Your task to perform on an android device: open app "Skype" Image 0: 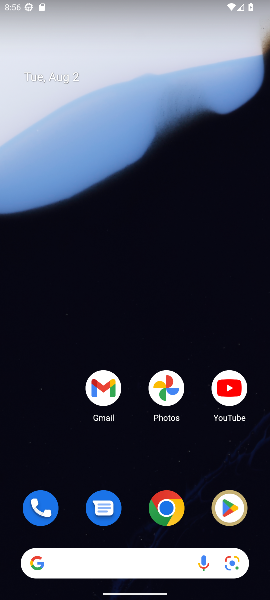
Step 0: drag from (134, 547) to (201, 39)
Your task to perform on an android device: open app "Skype" Image 1: 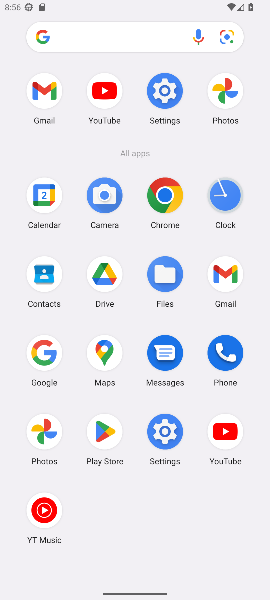
Step 1: click (112, 448)
Your task to perform on an android device: open app "Skype" Image 2: 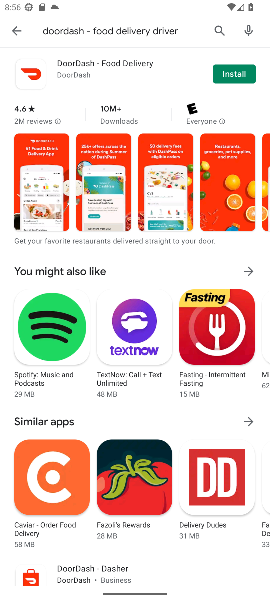
Step 2: click (17, 25)
Your task to perform on an android device: open app "Skype" Image 3: 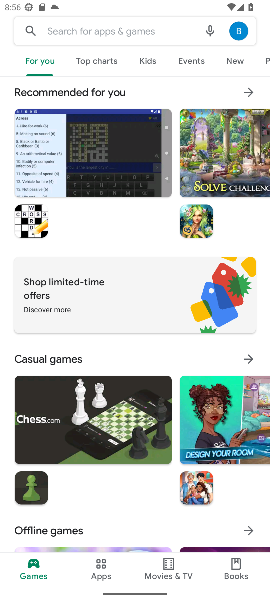
Step 3: click (119, 32)
Your task to perform on an android device: open app "Skype" Image 4: 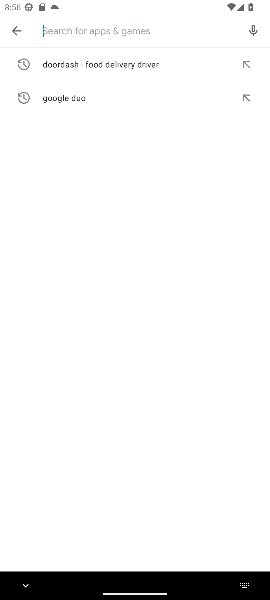
Step 4: type "Skype"
Your task to perform on an android device: open app "Skype" Image 5: 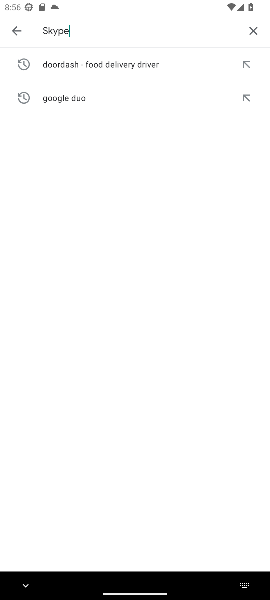
Step 5: type ""
Your task to perform on an android device: open app "Skype" Image 6: 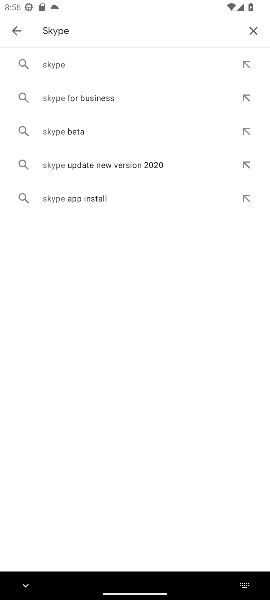
Step 6: click (117, 64)
Your task to perform on an android device: open app "Skype" Image 7: 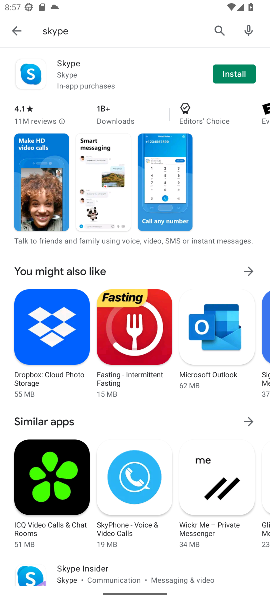
Step 7: task complete